Your task to perform on an android device: Go to Google maps Image 0: 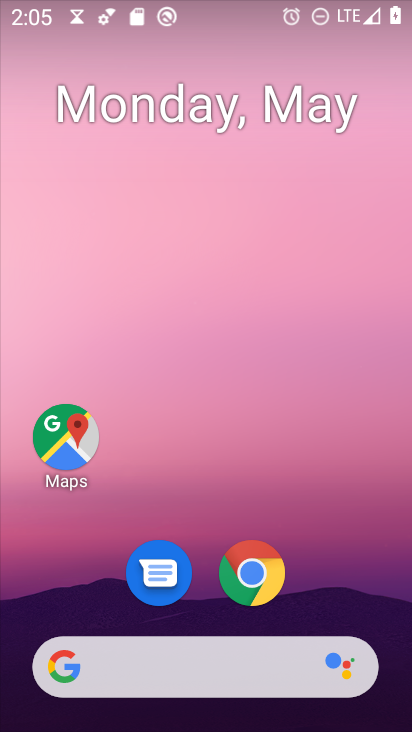
Step 0: drag from (250, 647) to (302, 255)
Your task to perform on an android device: Go to Google maps Image 1: 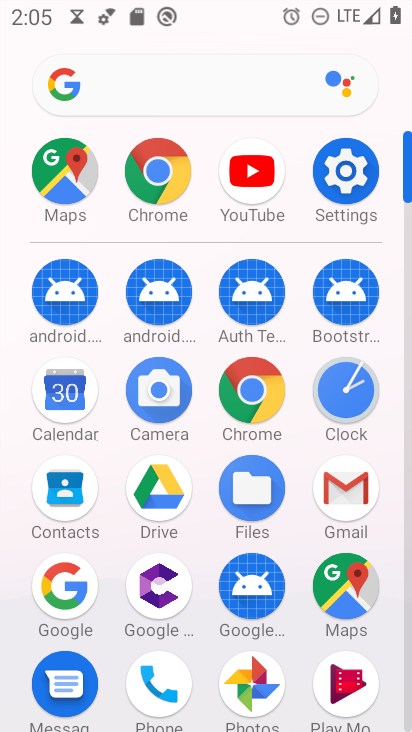
Step 1: click (357, 590)
Your task to perform on an android device: Go to Google maps Image 2: 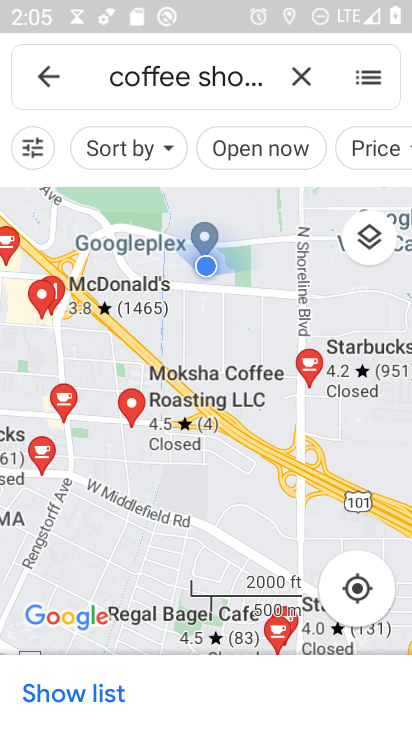
Step 2: task complete